Your task to perform on an android device: Check out the top rated books on Goodreads. Image 0: 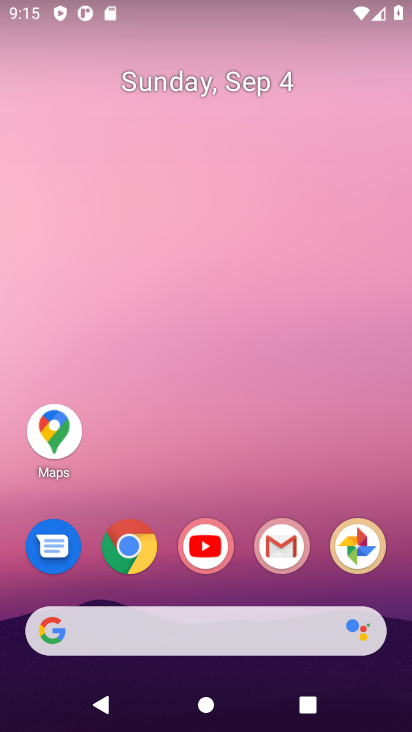
Step 0: click (134, 555)
Your task to perform on an android device: Check out the top rated books on Goodreads. Image 1: 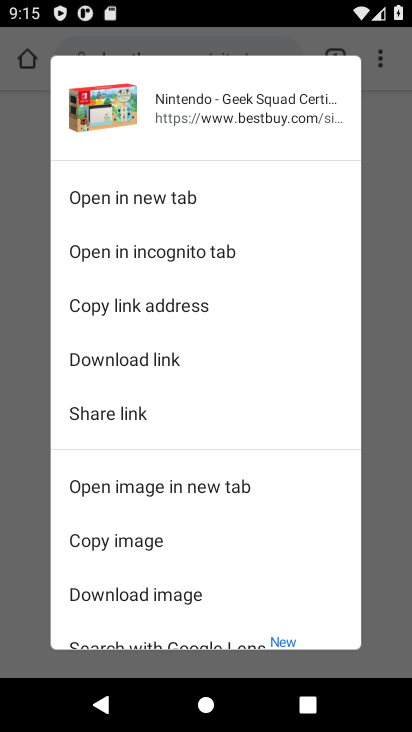
Step 1: click (399, 416)
Your task to perform on an android device: Check out the top rated books on Goodreads. Image 2: 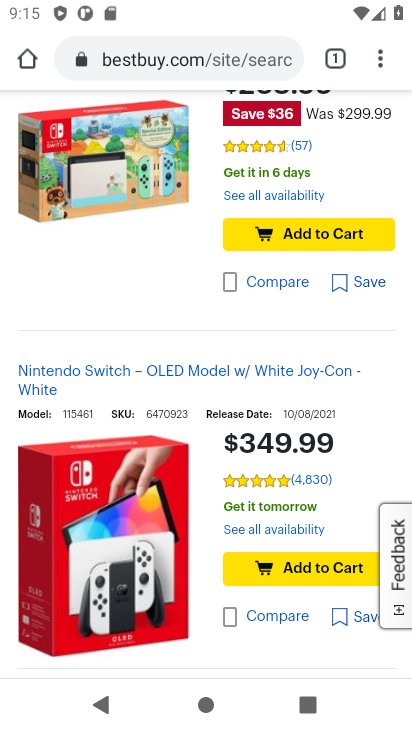
Step 2: click (236, 66)
Your task to perform on an android device: Check out the top rated books on Goodreads. Image 3: 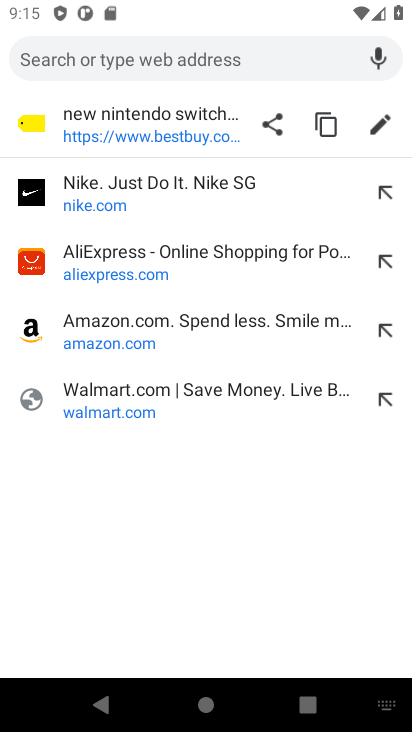
Step 3: type "Goodreads"
Your task to perform on an android device: Check out the top rated books on Goodreads. Image 4: 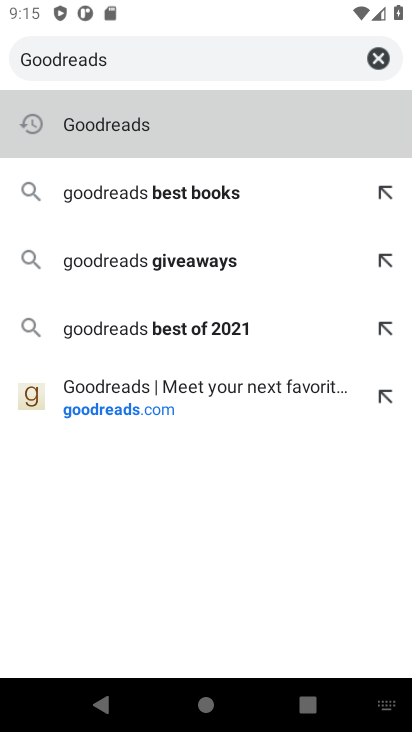
Step 4: click (107, 124)
Your task to perform on an android device: Check out the top rated books on Goodreads. Image 5: 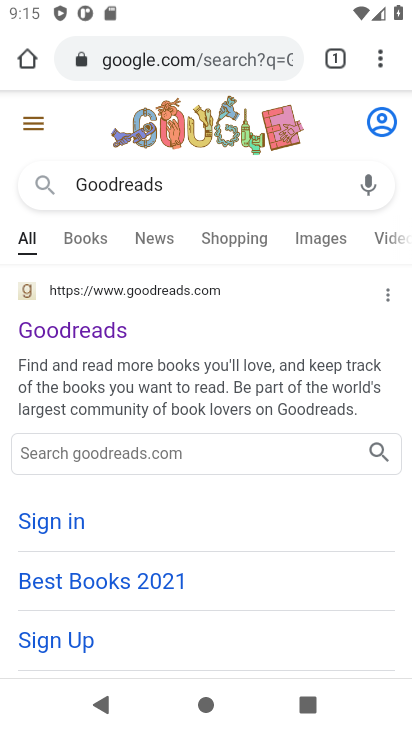
Step 5: click (60, 334)
Your task to perform on an android device: Check out the top rated books on Goodreads. Image 6: 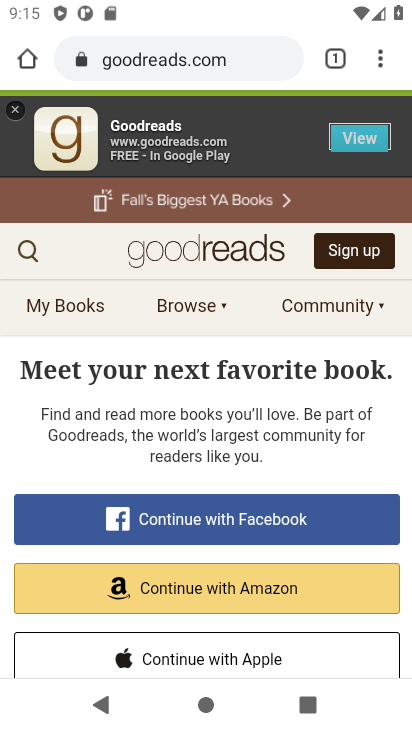
Step 6: click (23, 247)
Your task to perform on an android device: Check out the top rated books on Goodreads. Image 7: 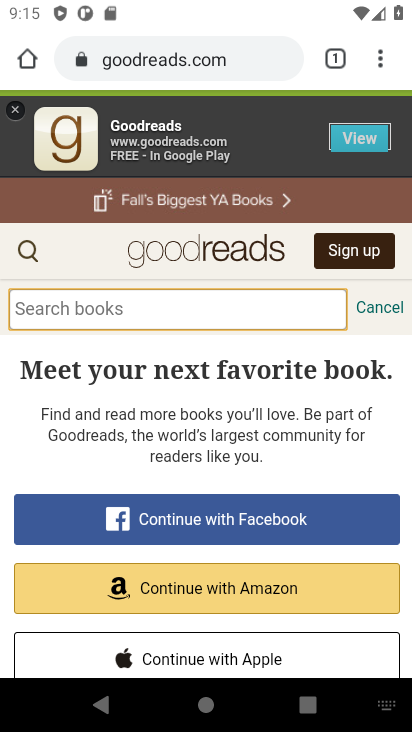
Step 7: type "top rated books "
Your task to perform on an android device: Check out the top rated books on Goodreads. Image 8: 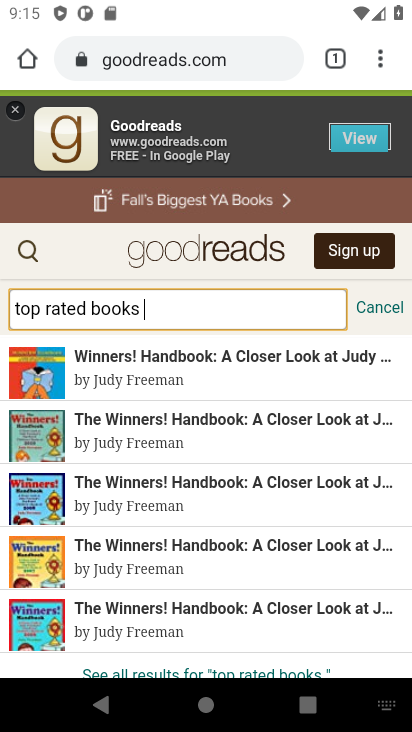
Step 8: task complete